Your task to perform on an android device: Empty the shopping cart on ebay. Add usb-c to usb-a to the cart on ebay Image 0: 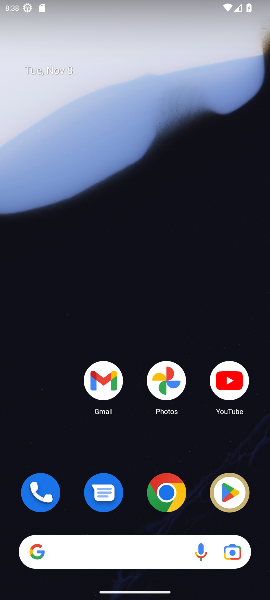
Step 0: click (152, 548)
Your task to perform on an android device: Empty the shopping cart on ebay. Add usb-c to usb-a to the cart on ebay Image 1: 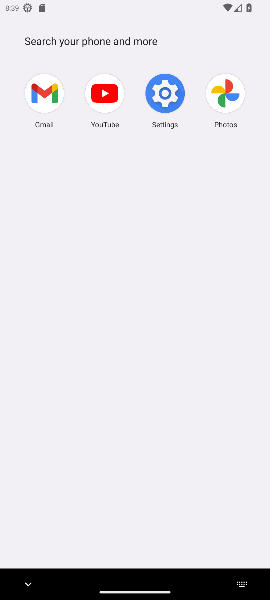
Step 1: type "usb-c to usb-a"
Your task to perform on an android device: Empty the shopping cart on ebay. Add usb-c to usb-a to the cart on ebay Image 2: 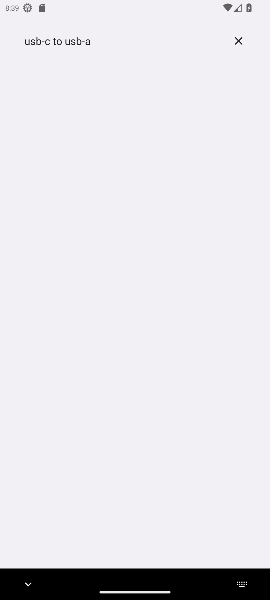
Step 2: task complete